Your task to perform on an android device: toggle data saver in the chrome app Image 0: 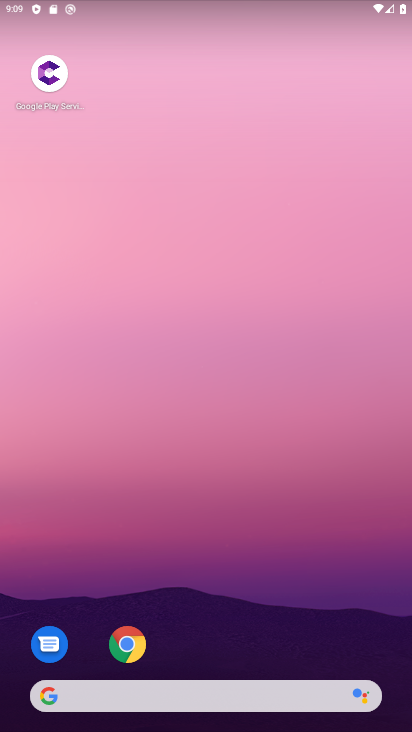
Step 0: click (141, 636)
Your task to perform on an android device: toggle data saver in the chrome app Image 1: 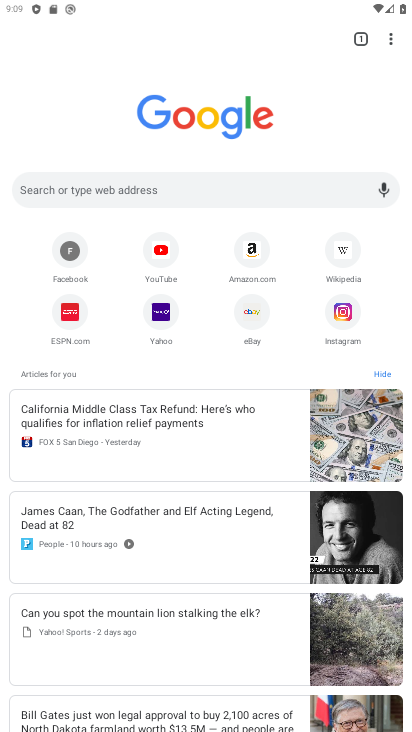
Step 1: click (389, 44)
Your task to perform on an android device: toggle data saver in the chrome app Image 2: 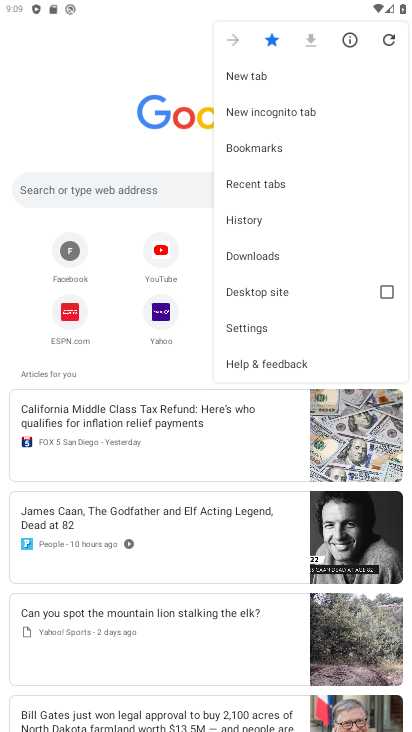
Step 2: click (255, 321)
Your task to perform on an android device: toggle data saver in the chrome app Image 3: 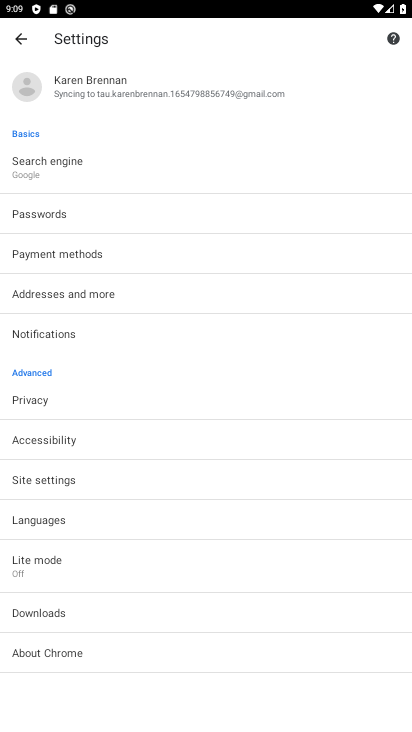
Step 3: click (93, 571)
Your task to perform on an android device: toggle data saver in the chrome app Image 4: 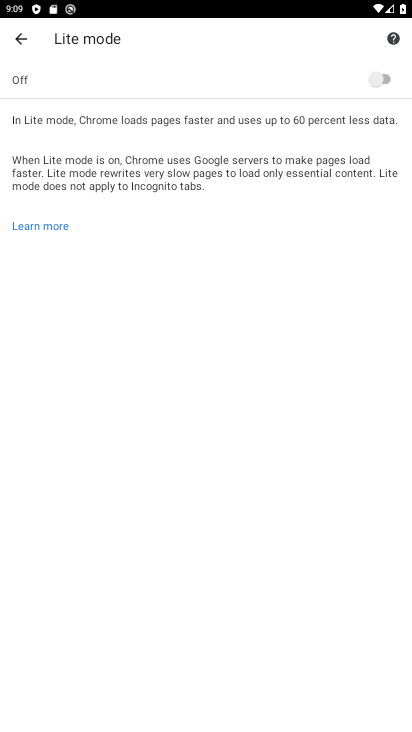
Step 4: click (375, 77)
Your task to perform on an android device: toggle data saver in the chrome app Image 5: 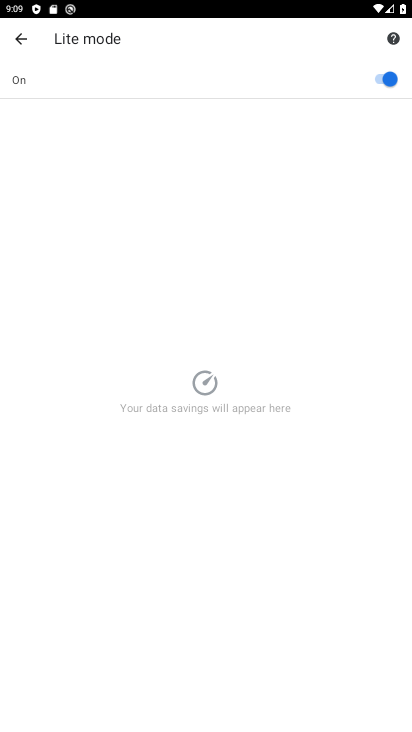
Step 5: task complete